Your task to perform on an android device: Empty the shopping cart on newegg. Add "razer huntsman" to the cart on newegg Image 0: 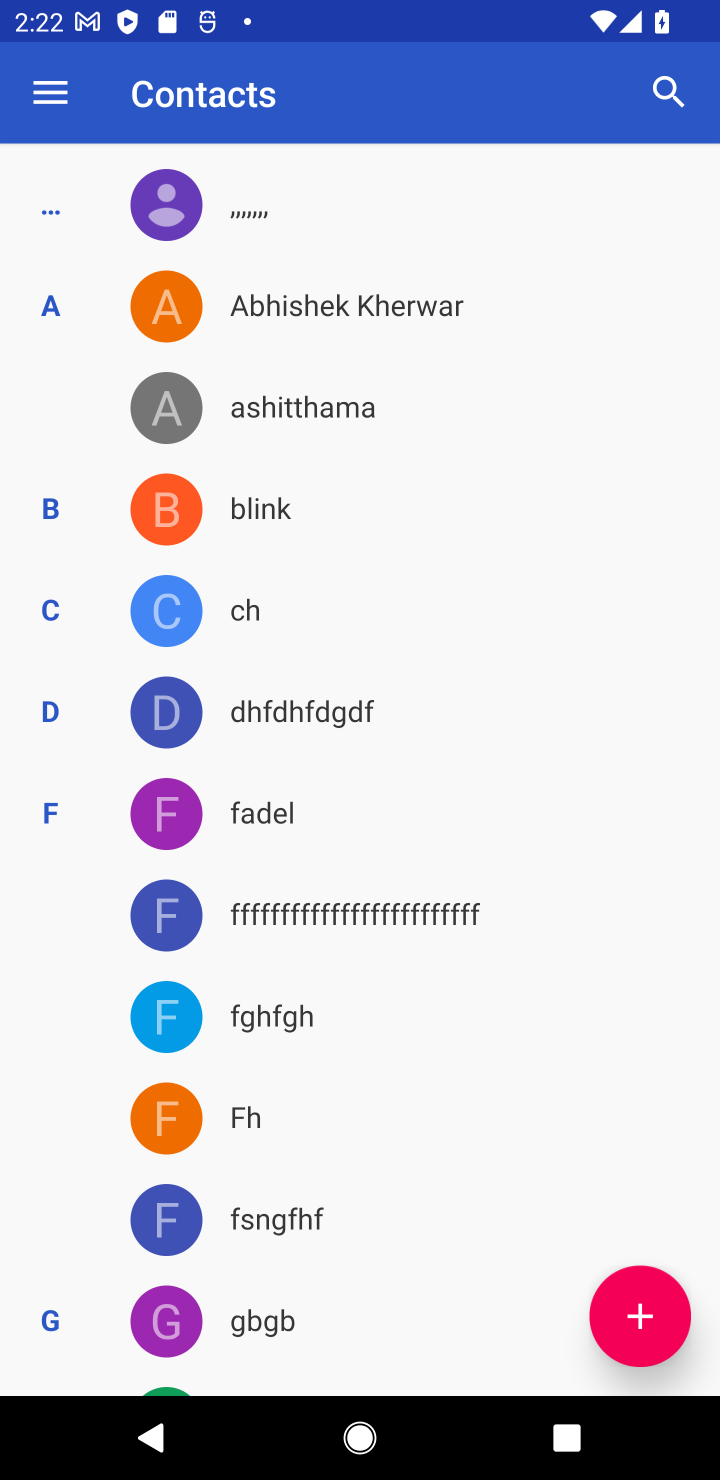
Step 0: press home button
Your task to perform on an android device: Empty the shopping cart on newegg. Add "razer huntsman" to the cart on newegg Image 1: 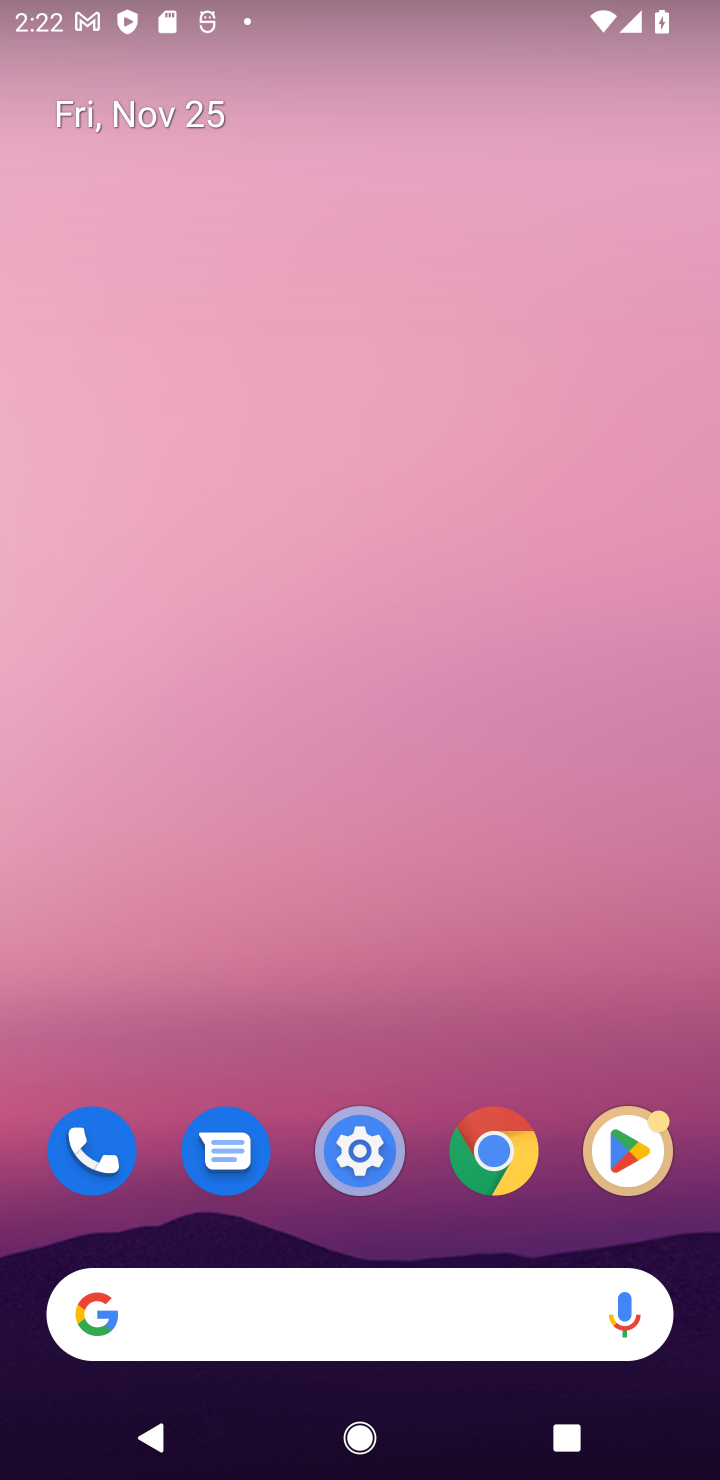
Step 1: click (447, 1348)
Your task to perform on an android device: Empty the shopping cart on newegg. Add "razer huntsman" to the cart on newegg Image 2: 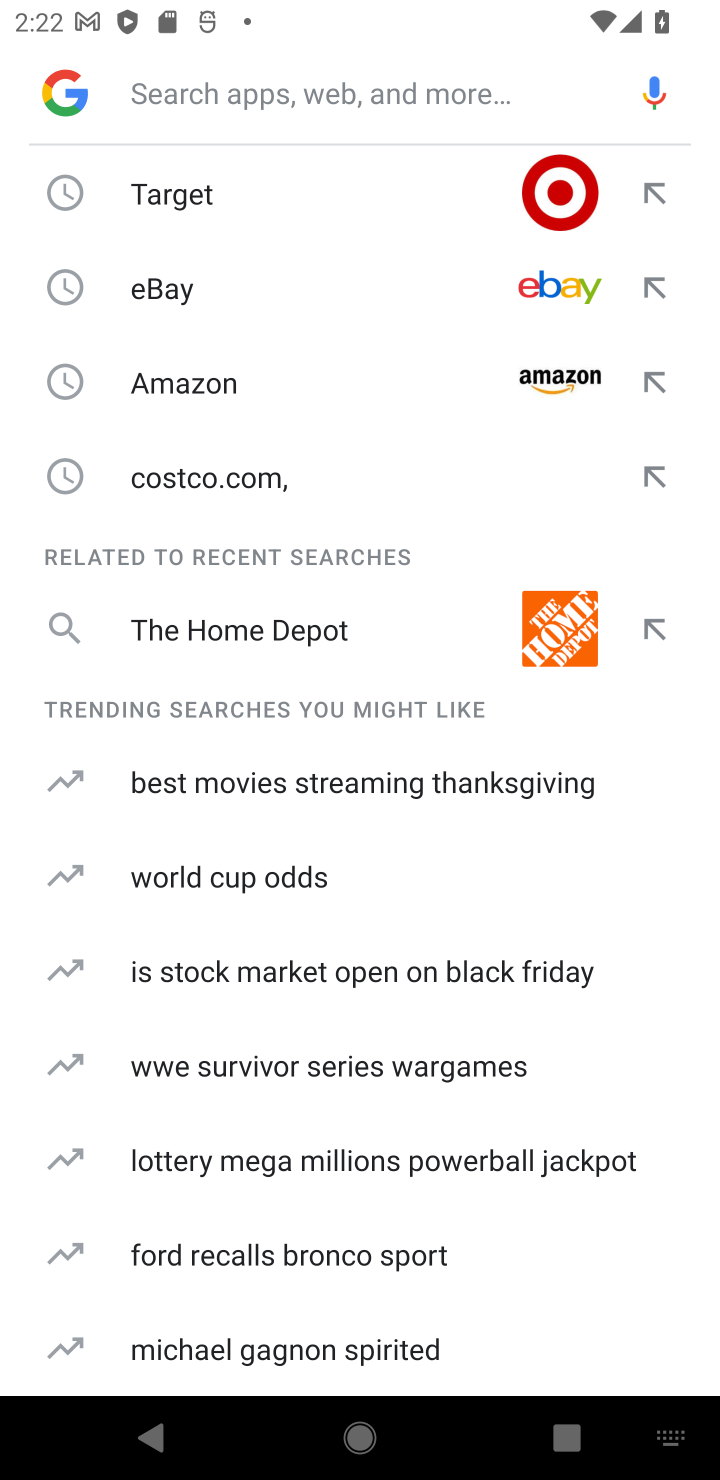
Step 2: type "newegg"
Your task to perform on an android device: Empty the shopping cart on newegg. Add "razer huntsman" to the cart on newegg Image 3: 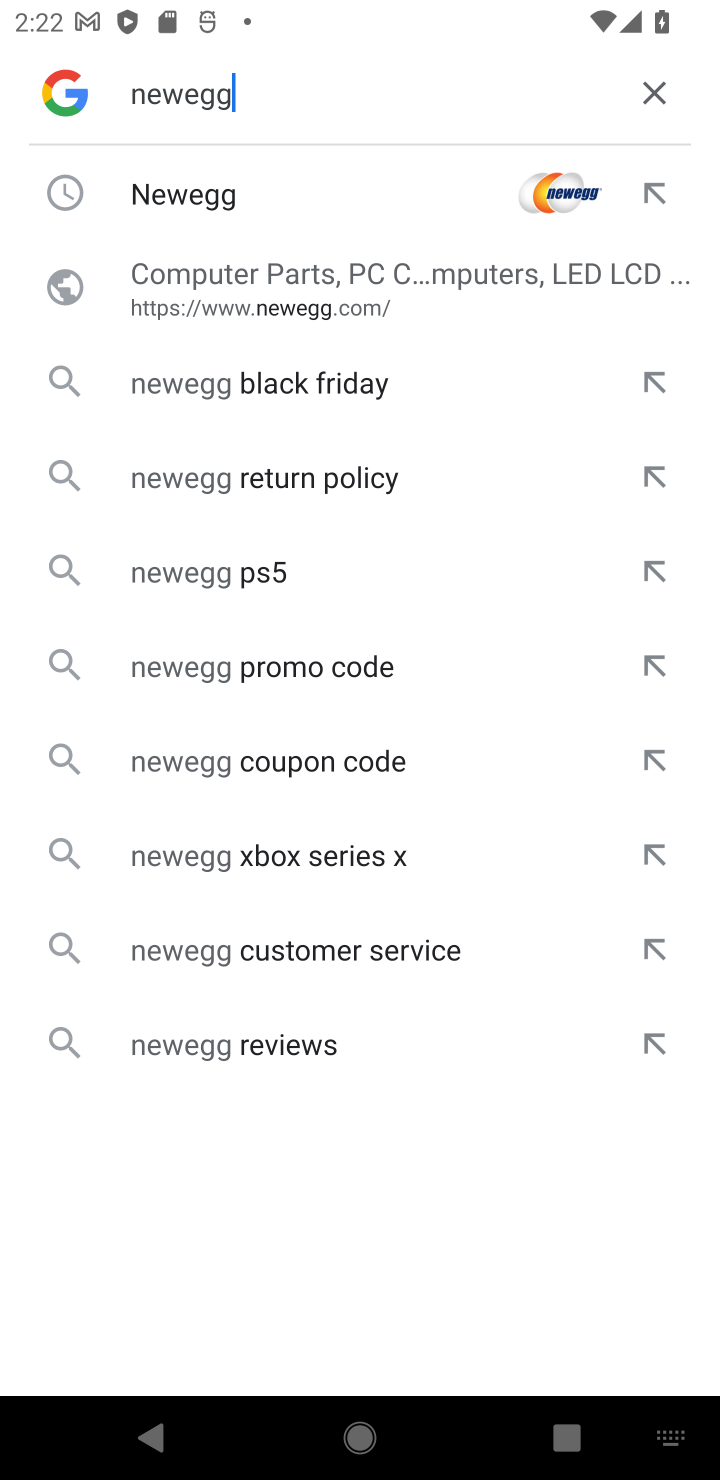
Step 3: click (257, 199)
Your task to perform on an android device: Empty the shopping cart on newegg. Add "razer huntsman" to the cart on newegg Image 4: 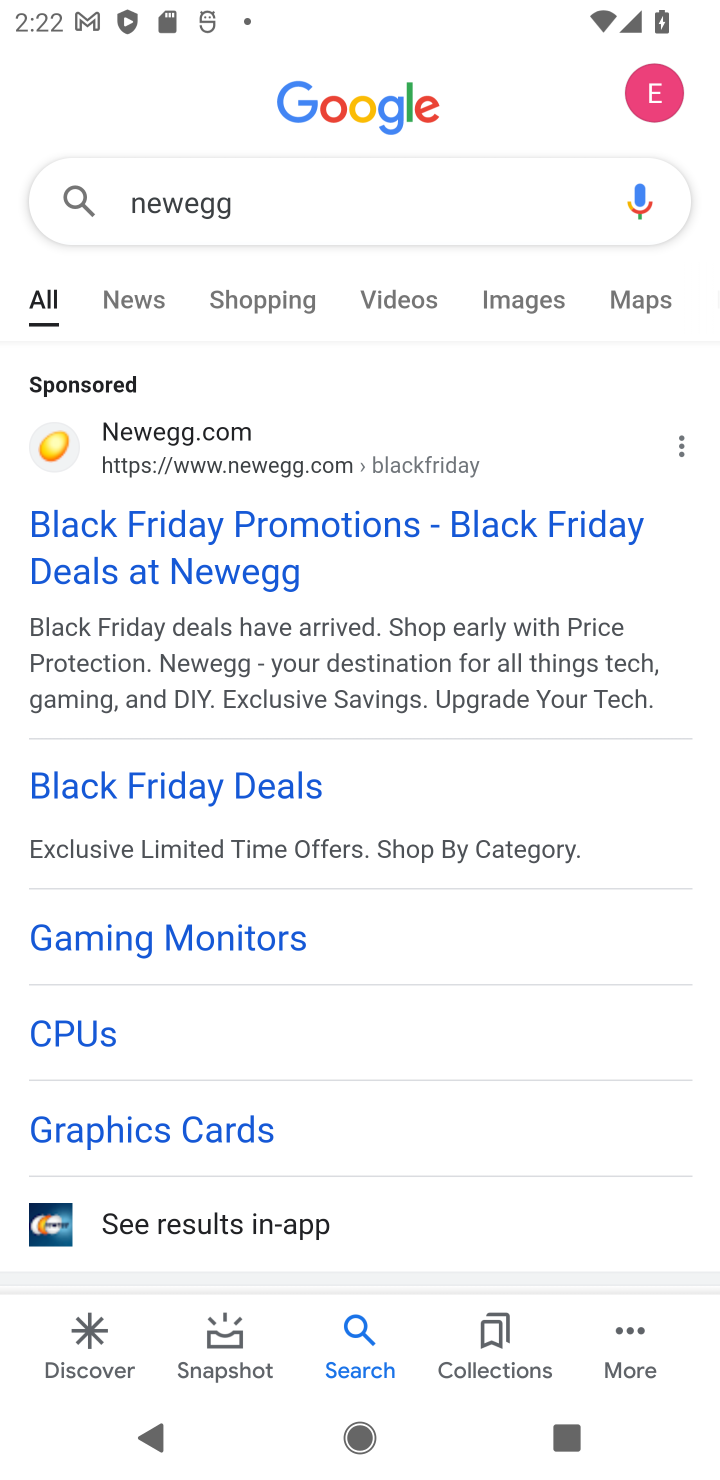
Step 4: click (155, 550)
Your task to perform on an android device: Empty the shopping cart on newegg. Add "razer huntsman" to the cart on newegg Image 5: 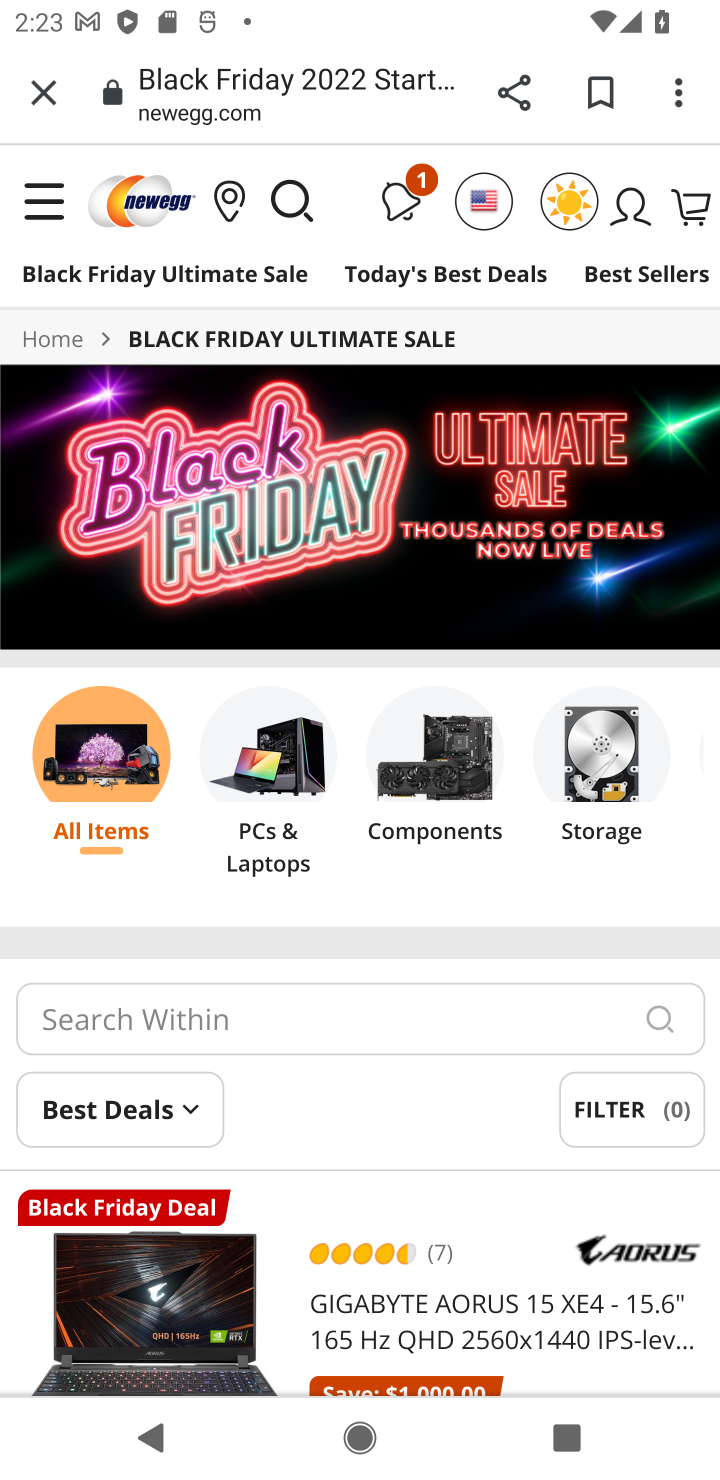
Step 5: click (276, 208)
Your task to perform on an android device: Empty the shopping cart on newegg. Add "razer huntsman" to the cart on newegg Image 6: 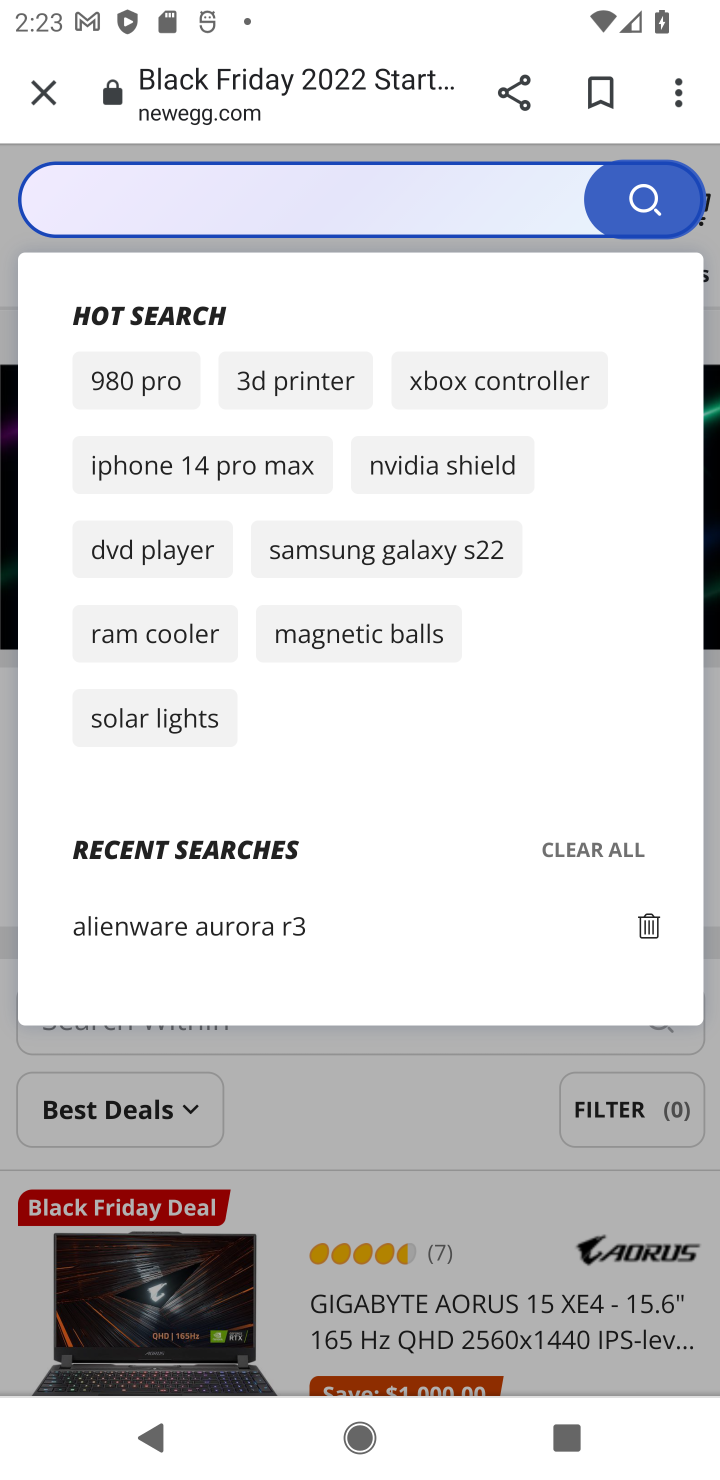
Step 6: type "razer huntsman"
Your task to perform on an android device: Empty the shopping cart on newegg. Add "razer huntsman" to the cart on newegg Image 7: 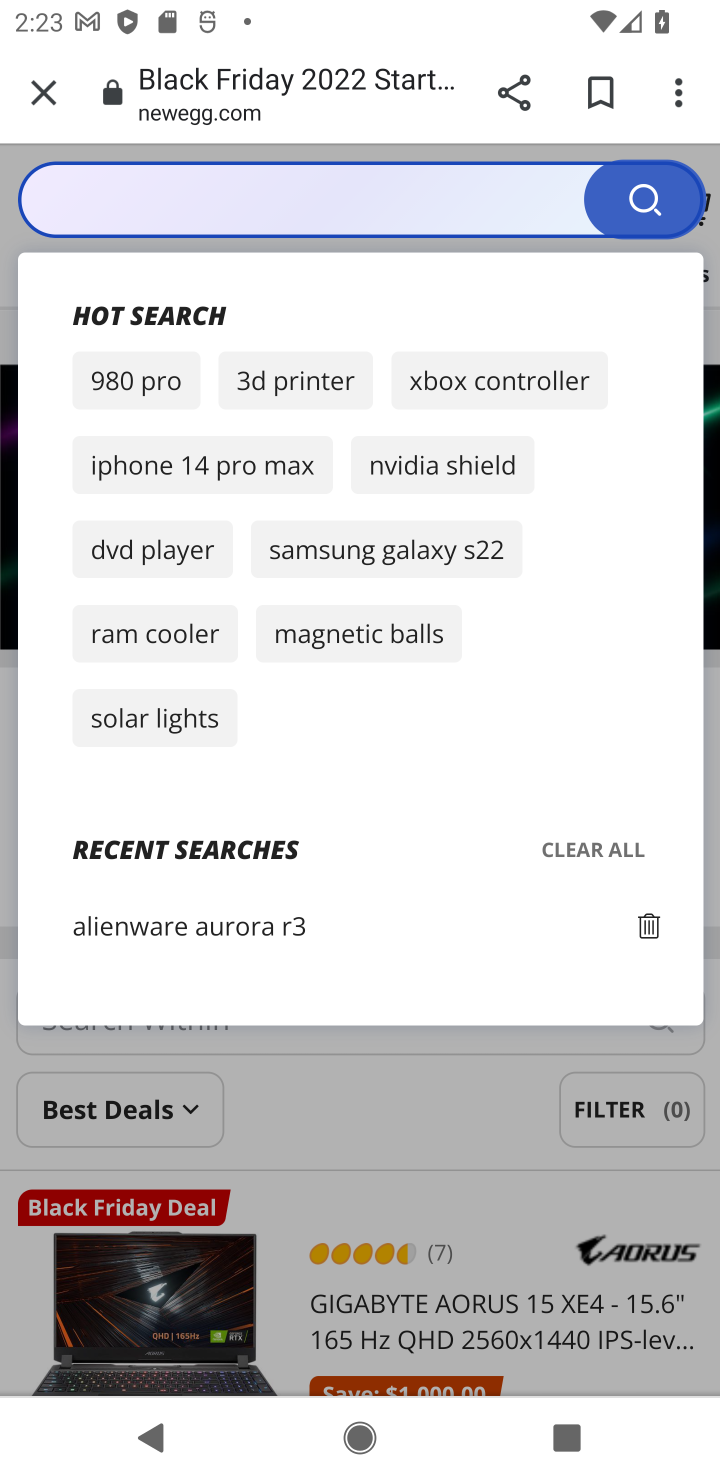
Step 7: task complete